Your task to perform on an android device: add a contact Image 0: 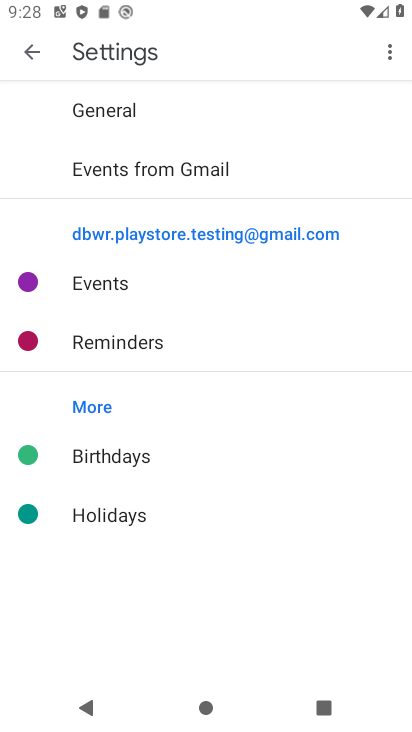
Step 0: press home button
Your task to perform on an android device: add a contact Image 1: 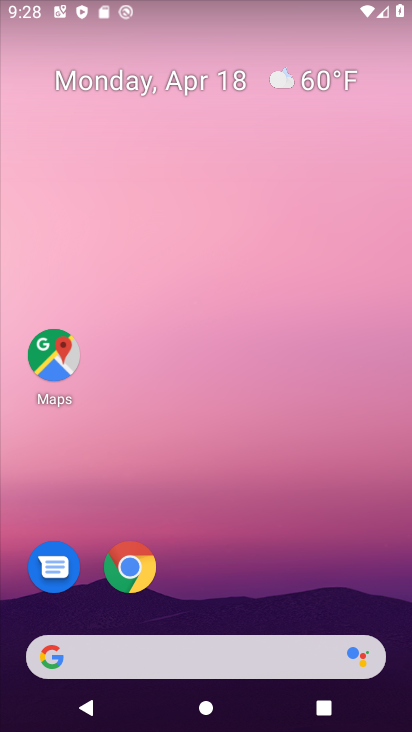
Step 1: drag from (199, 599) to (278, 70)
Your task to perform on an android device: add a contact Image 2: 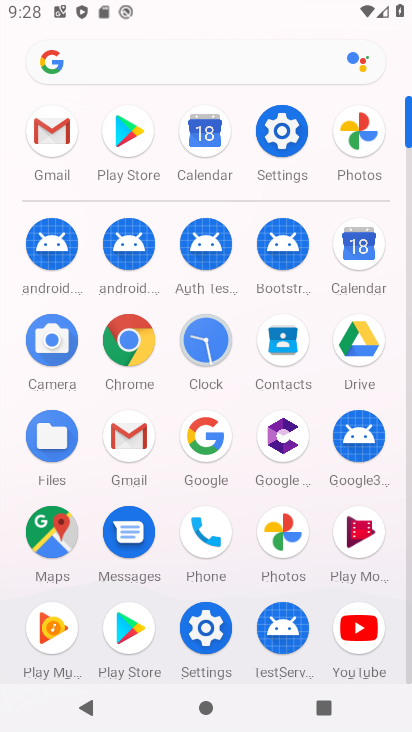
Step 2: click (285, 345)
Your task to perform on an android device: add a contact Image 3: 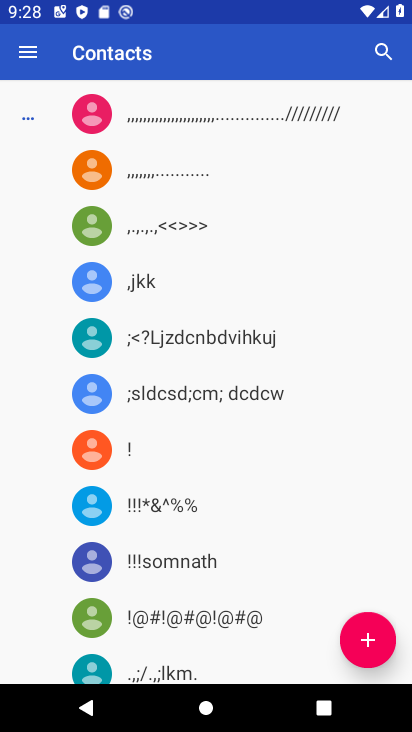
Step 3: click (370, 642)
Your task to perform on an android device: add a contact Image 4: 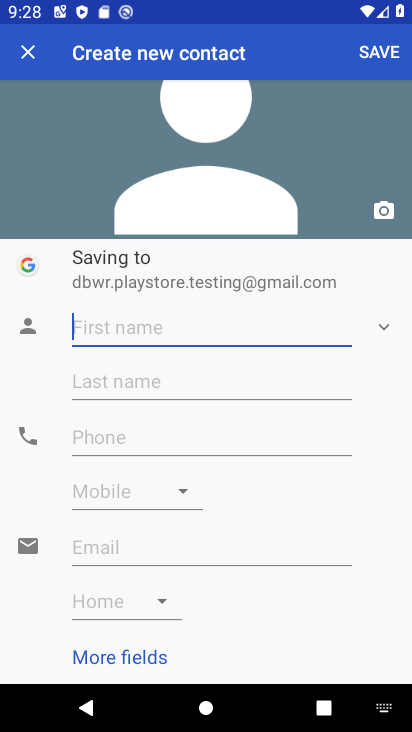
Step 4: type "manisha"
Your task to perform on an android device: add a contact Image 5: 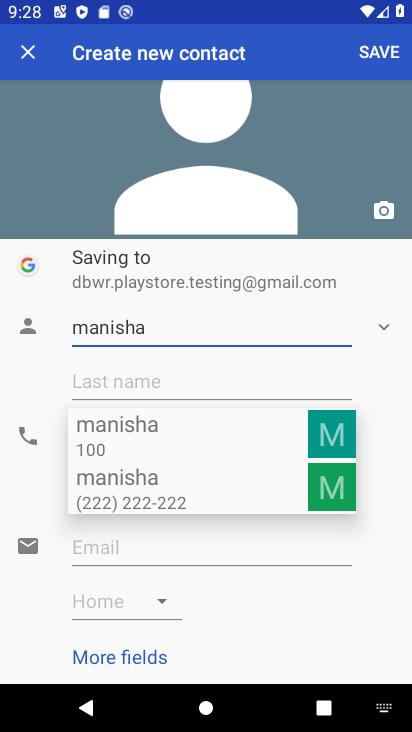
Step 5: click (159, 387)
Your task to perform on an android device: add a contact Image 6: 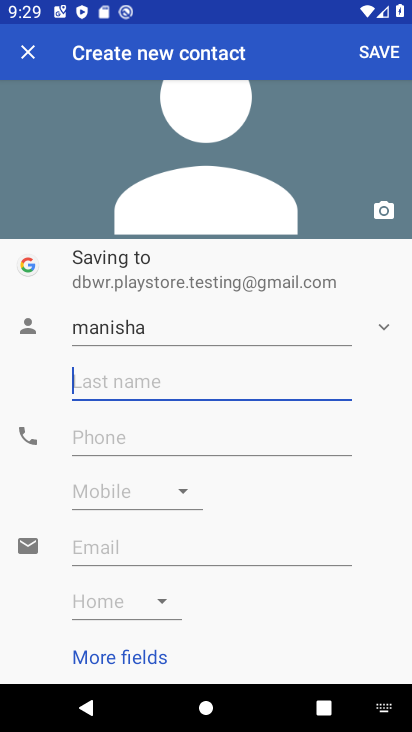
Step 6: type "mehata"
Your task to perform on an android device: add a contact Image 7: 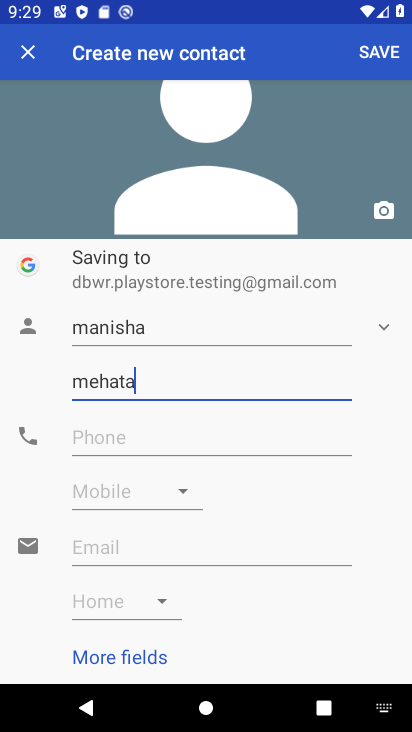
Step 7: click (132, 437)
Your task to perform on an android device: add a contact Image 8: 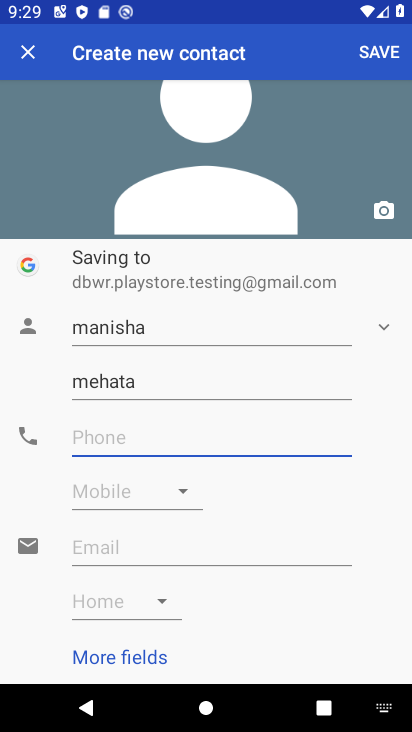
Step 8: type "1234567890"
Your task to perform on an android device: add a contact Image 9: 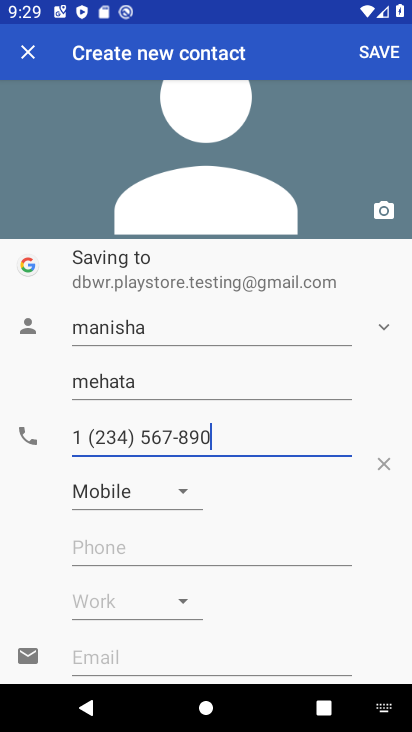
Step 9: click (379, 61)
Your task to perform on an android device: add a contact Image 10: 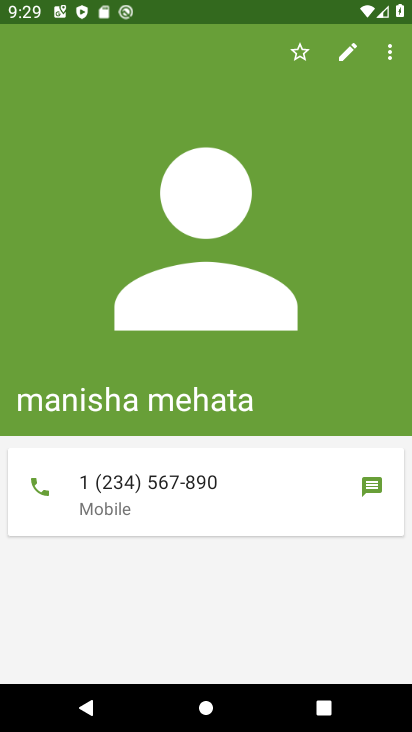
Step 10: task complete